Your task to perform on an android device: Open CNN.com Image 0: 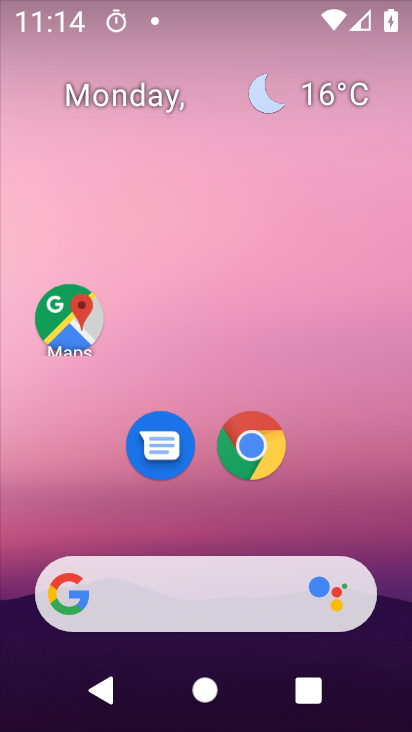
Step 0: click (259, 444)
Your task to perform on an android device: Open CNN.com Image 1: 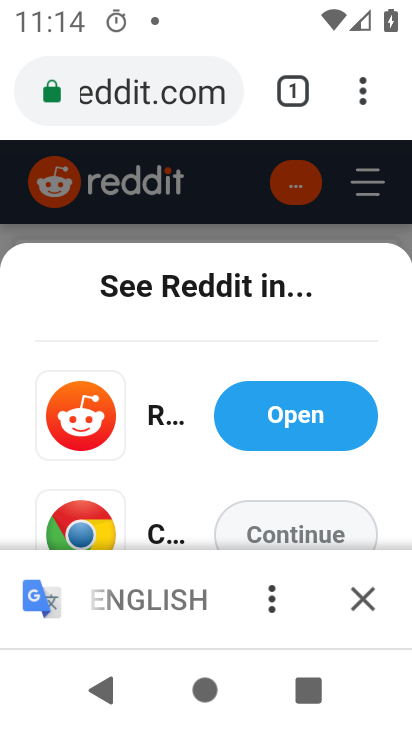
Step 1: click (179, 107)
Your task to perform on an android device: Open CNN.com Image 2: 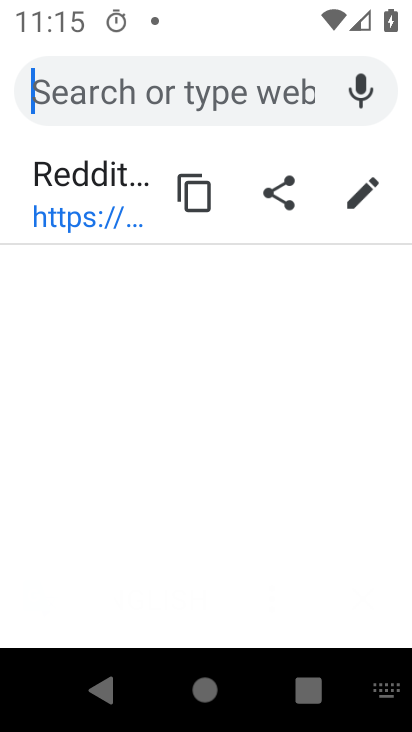
Step 2: type "CNN.com"
Your task to perform on an android device: Open CNN.com Image 3: 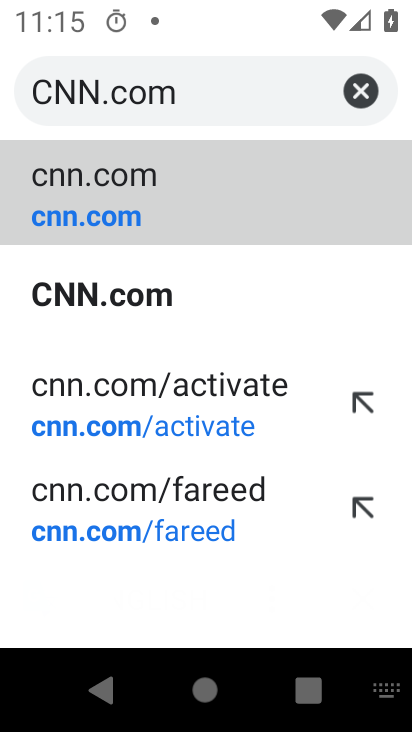
Step 3: click (131, 297)
Your task to perform on an android device: Open CNN.com Image 4: 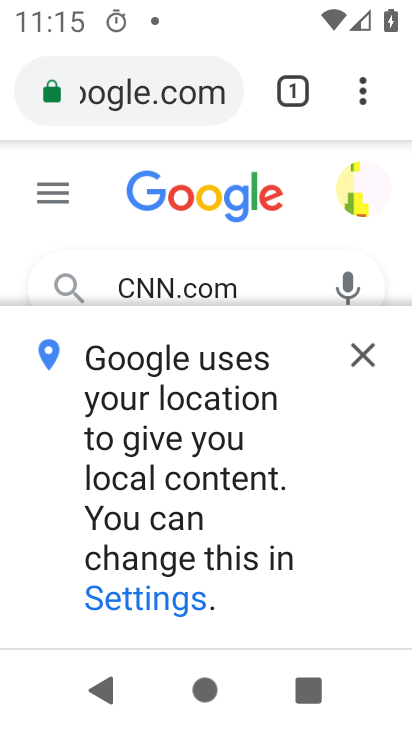
Step 4: click (366, 358)
Your task to perform on an android device: Open CNN.com Image 5: 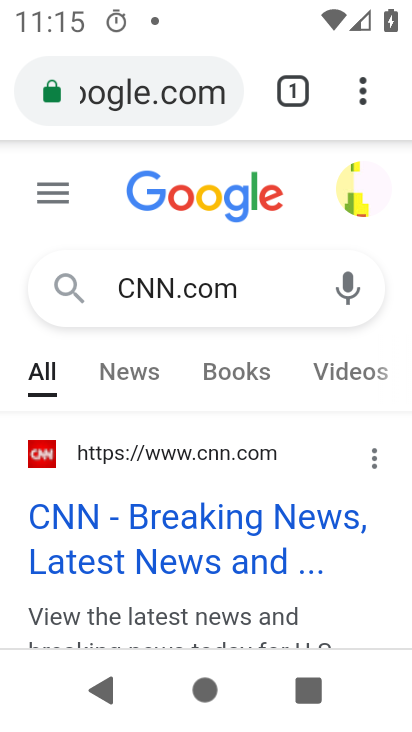
Step 5: task complete